Your task to perform on an android device: see sites visited before in the chrome app Image 0: 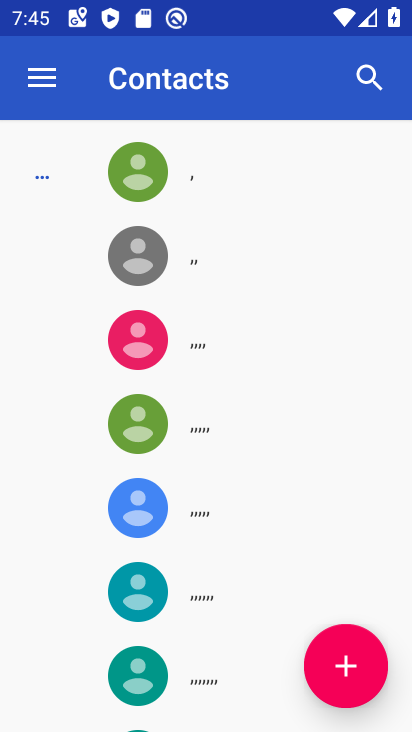
Step 0: press home button
Your task to perform on an android device: see sites visited before in the chrome app Image 1: 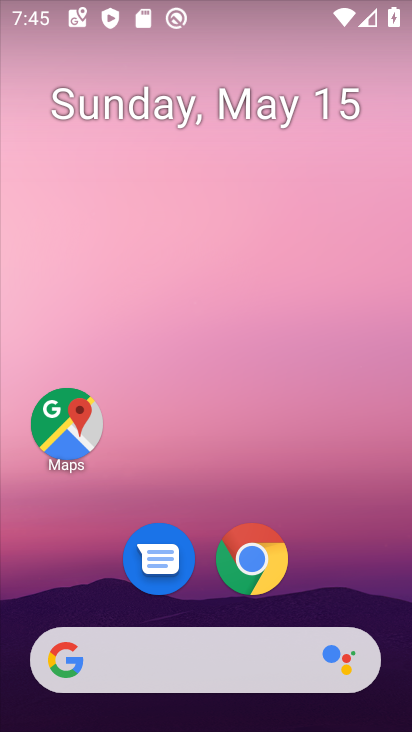
Step 1: click (287, 557)
Your task to perform on an android device: see sites visited before in the chrome app Image 2: 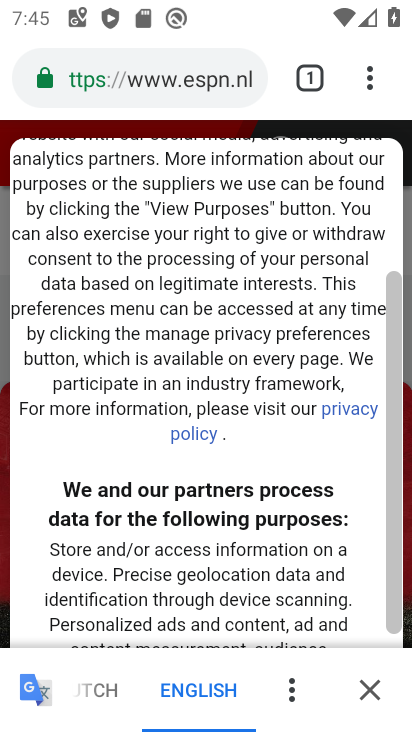
Step 2: click (371, 695)
Your task to perform on an android device: see sites visited before in the chrome app Image 3: 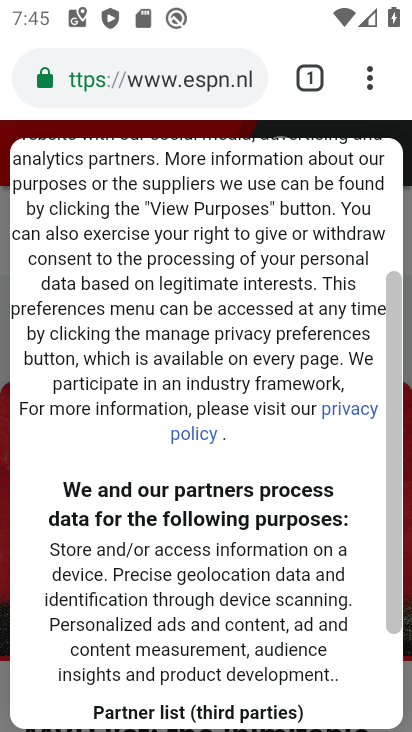
Step 3: click (356, 82)
Your task to perform on an android device: see sites visited before in the chrome app Image 4: 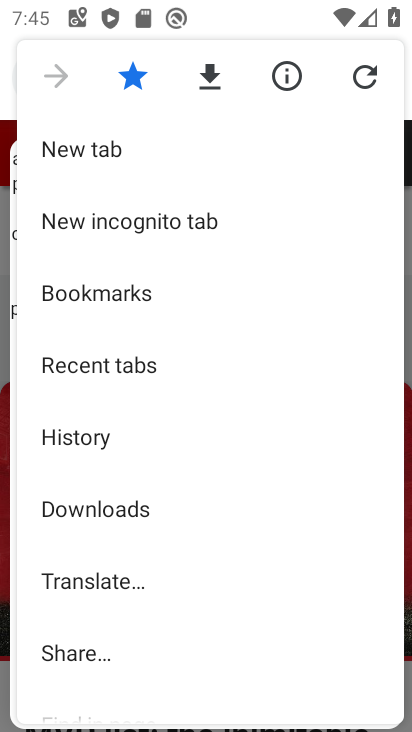
Step 4: click (162, 351)
Your task to perform on an android device: see sites visited before in the chrome app Image 5: 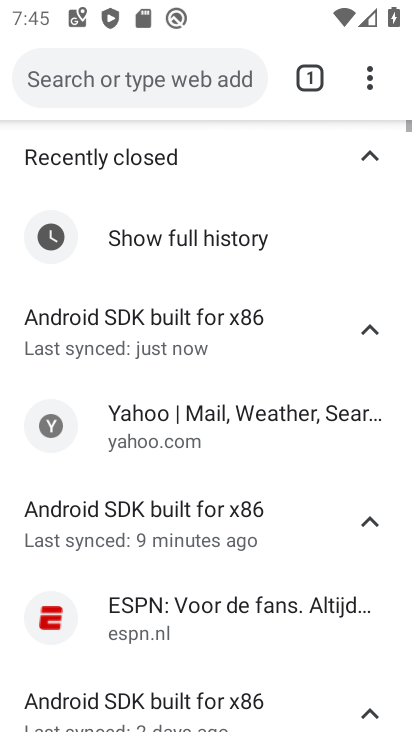
Step 5: task complete